Your task to perform on an android device: Turn on the flashlight Image 0: 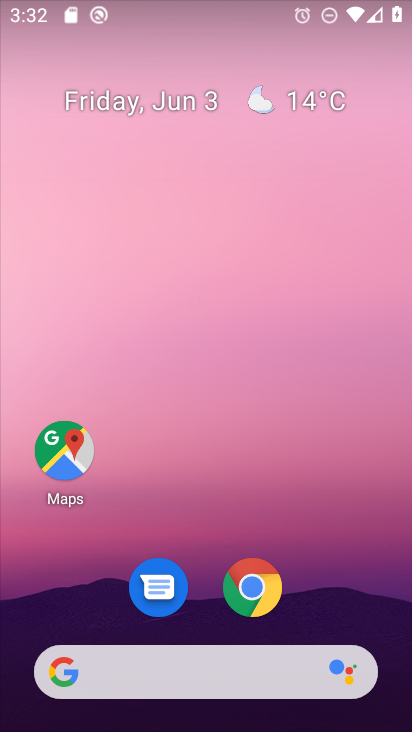
Step 0: drag from (202, 712) to (237, 121)
Your task to perform on an android device: Turn on the flashlight Image 1: 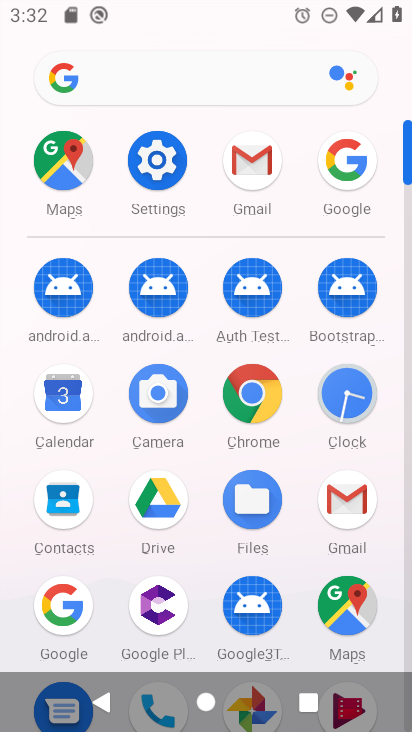
Step 1: click (155, 154)
Your task to perform on an android device: Turn on the flashlight Image 2: 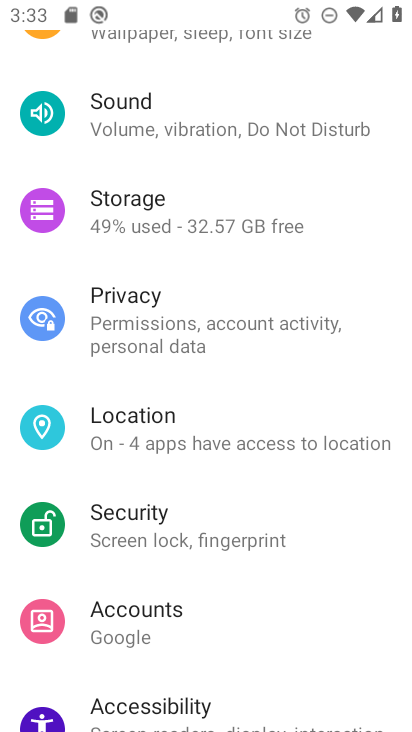
Step 2: task complete